Your task to perform on an android device: Go to wifi settings Image 0: 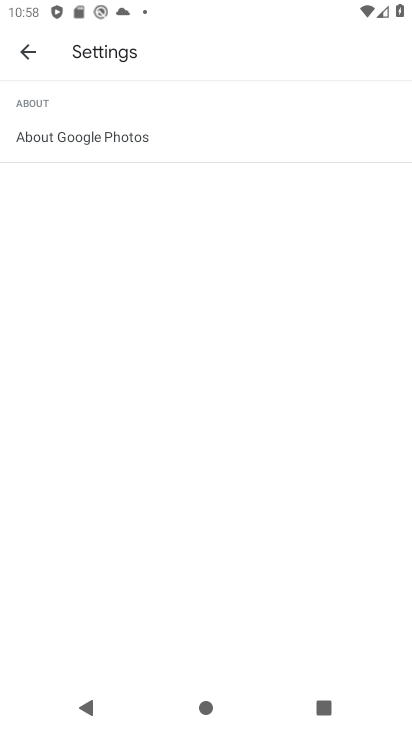
Step 0: press home button
Your task to perform on an android device: Go to wifi settings Image 1: 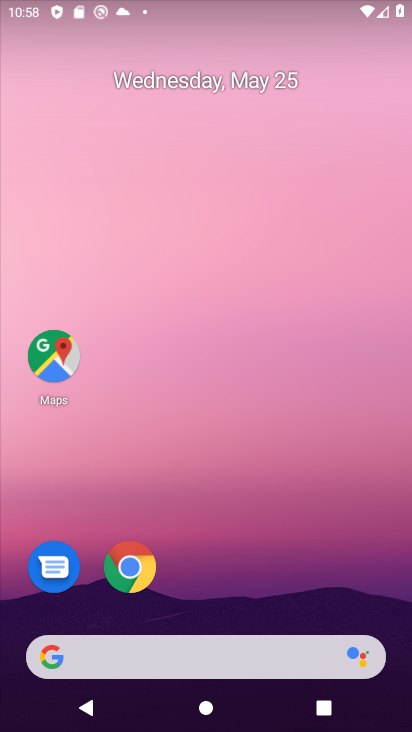
Step 1: drag from (169, 557) to (209, 60)
Your task to perform on an android device: Go to wifi settings Image 2: 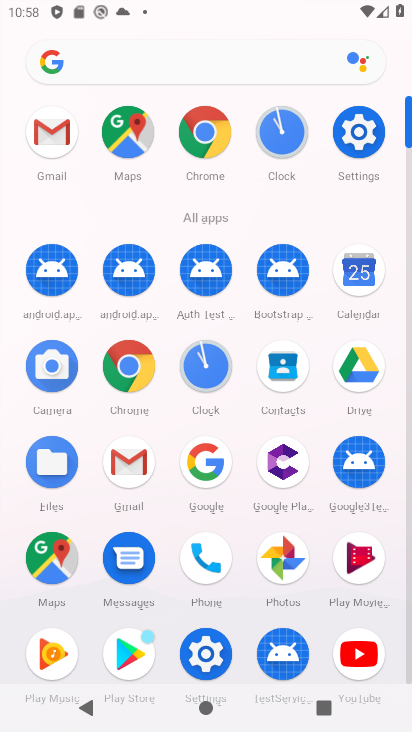
Step 2: click (366, 144)
Your task to perform on an android device: Go to wifi settings Image 3: 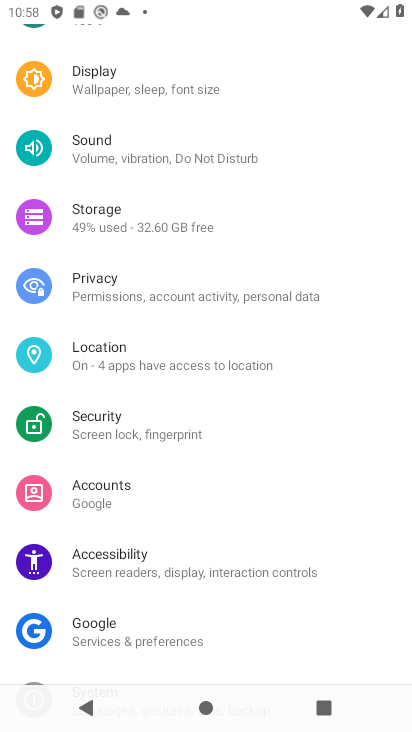
Step 3: drag from (269, 191) to (233, 655)
Your task to perform on an android device: Go to wifi settings Image 4: 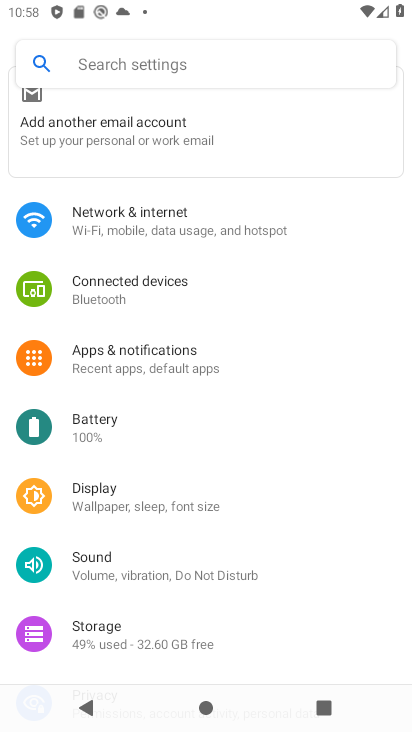
Step 4: click (140, 216)
Your task to perform on an android device: Go to wifi settings Image 5: 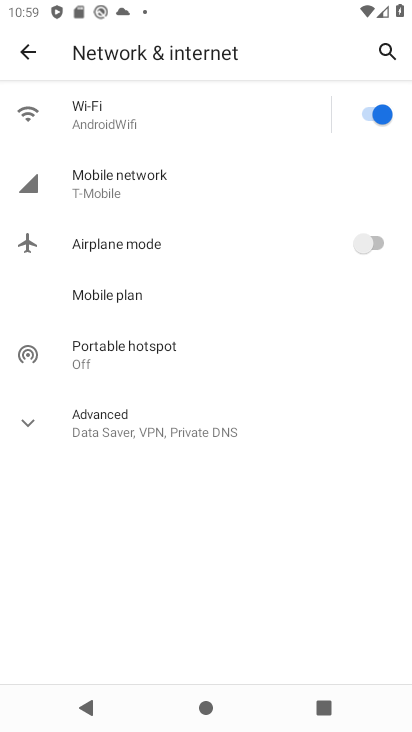
Step 5: click (117, 124)
Your task to perform on an android device: Go to wifi settings Image 6: 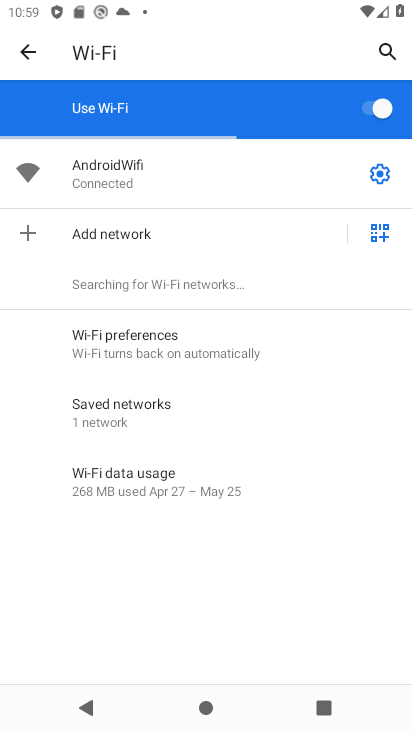
Step 6: task complete